Your task to perform on an android device: turn off improve location accuracy Image 0: 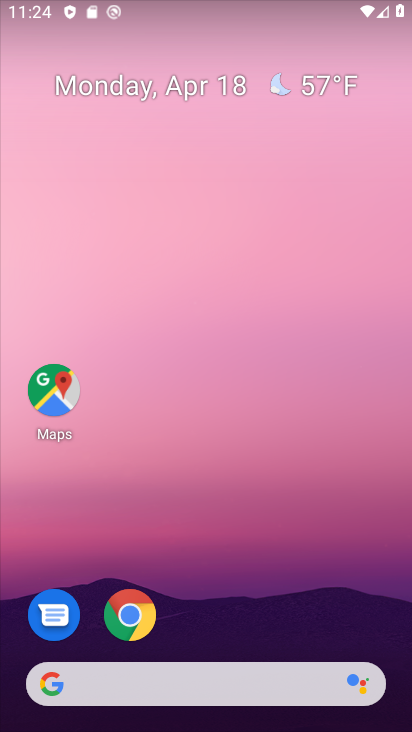
Step 0: drag from (204, 614) to (204, 229)
Your task to perform on an android device: turn off improve location accuracy Image 1: 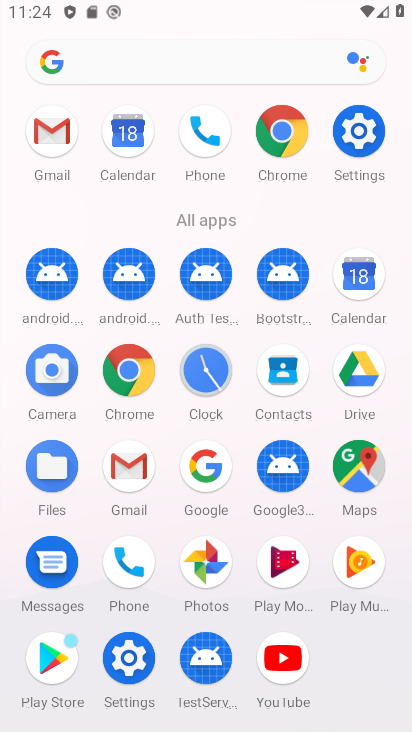
Step 1: click (350, 136)
Your task to perform on an android device: turn off improve location accuracy Image 2: 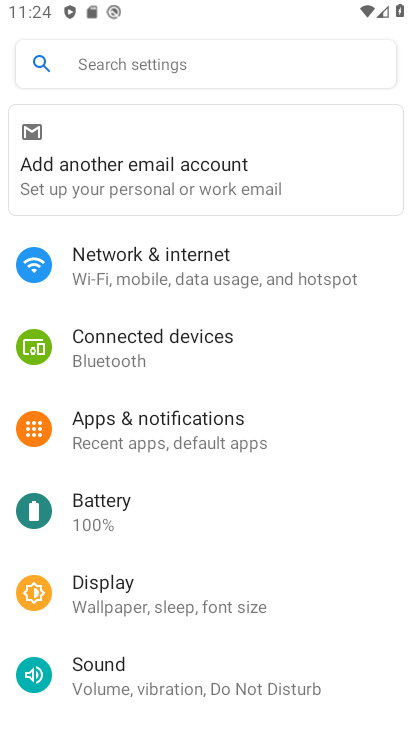
Step 2: drag from (182, 585) to (251, 270)
Your task to perform on an android device: turn off improve location accuracy Image 3: 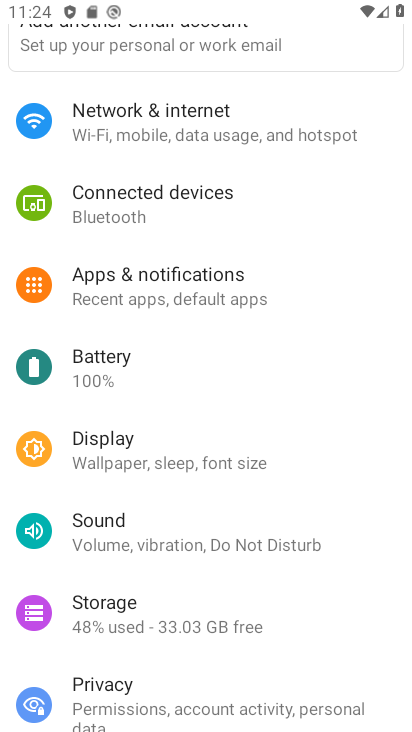
Step 3: drag from (178, 665) to (183, 342)
Your task to perform on an android device: turn off improve location accuracy Image 4: 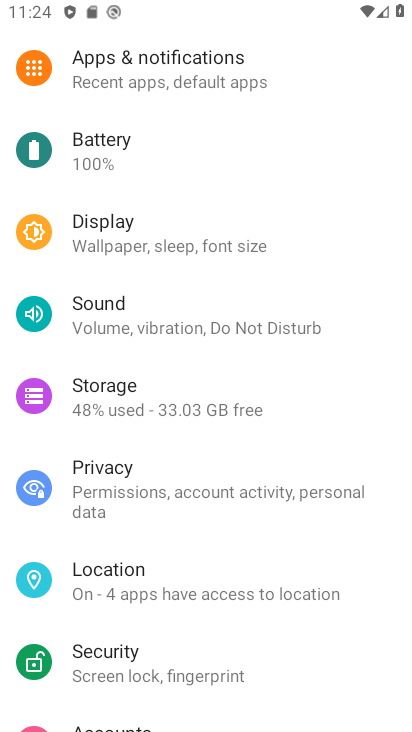
Step 4: click (183, 562)
Your task to perform on an android device: turn off improve location accuracy Image 5: 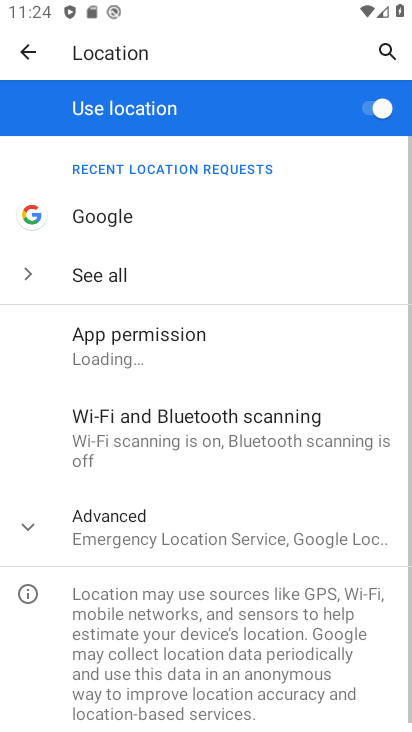
Step 5: drag from (183, 562) to (216, 284)
Your task to perform on an android device: turn off improve location accuracy Image 6: 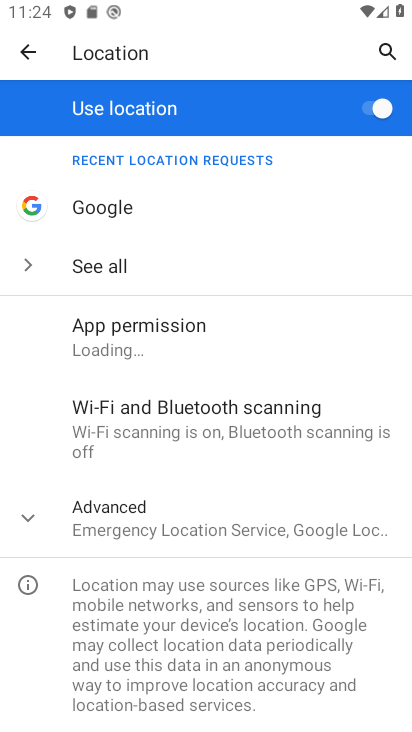
Step 6: drag from (212, 642) to (230, 378)
Your task to perform on an android device: turn off improve location accuracy Image 7: 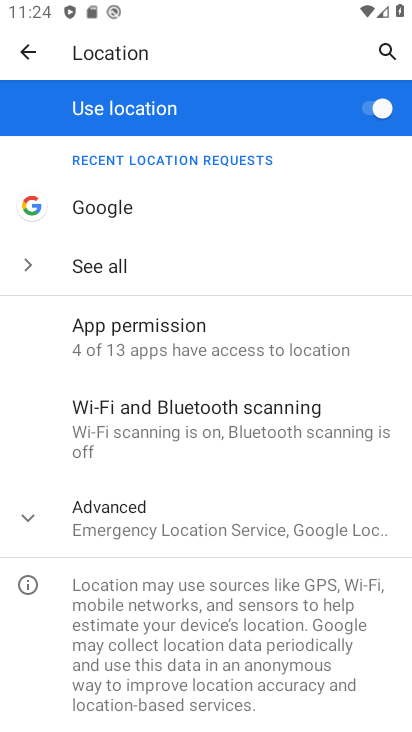
Step 7: click (204, 533)
Your task to perform on an android device: turn off improve location accuracy Image 8: 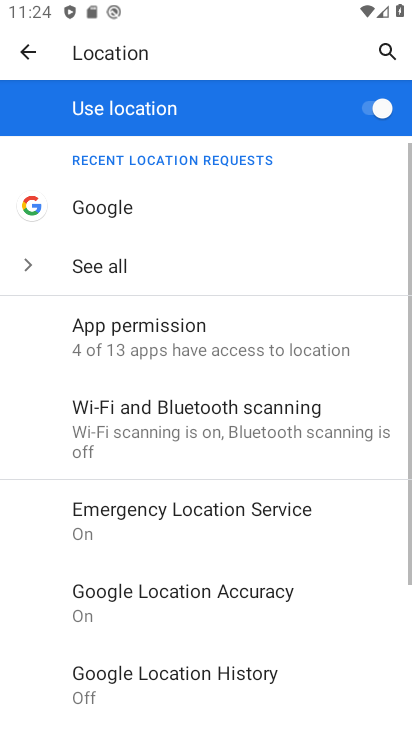
Step 8: drag from (216, 625) to (232, 356)
Your task to perform on an android device: turn off improve location accuracy Image 9: 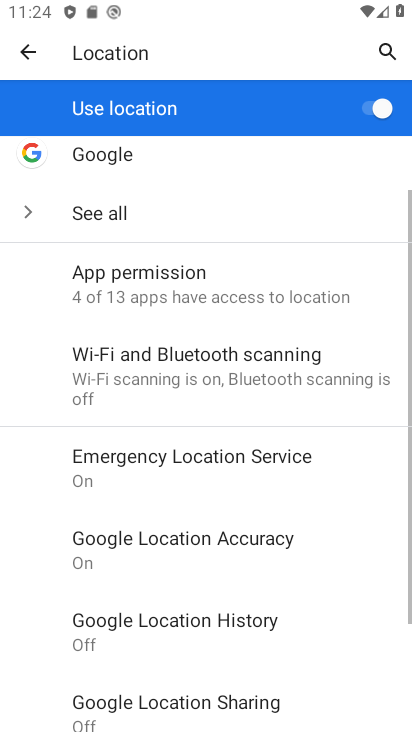
Step 9: drag from (232, 549) to (258, 340)
Your task to perform on an android device: turn off improve location accuracy Image 10: 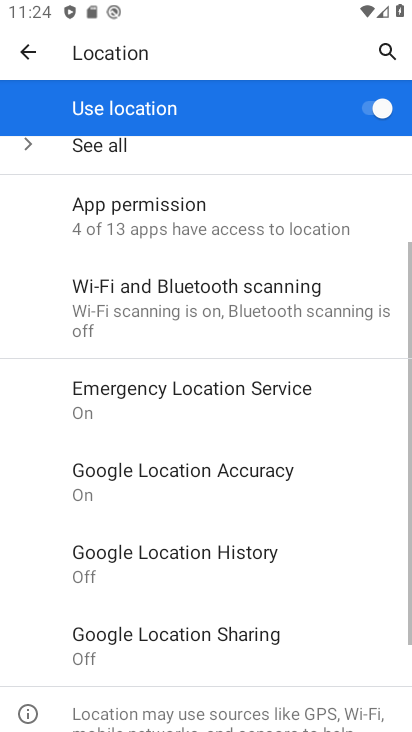
Step 10: drag from (236, 449) to (236, 413)
Your task to perform on an android device: turn off improve location accuracy Image 11: 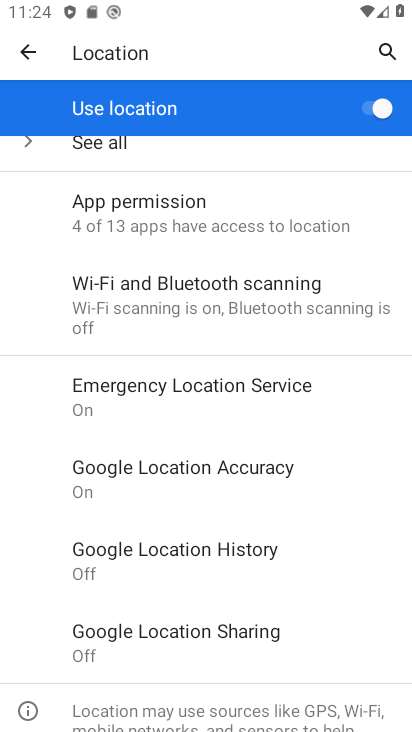
Step 11: click (230, 477)
Your task to perform on an android device: turn off improve location accuracy Image 12: 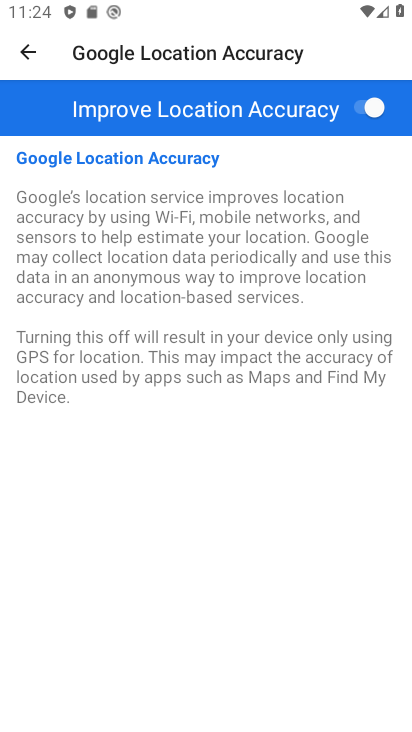
Step 12: click (355, 108)
Your task to perform on an android device: turn off improve location accuracy Image 13: 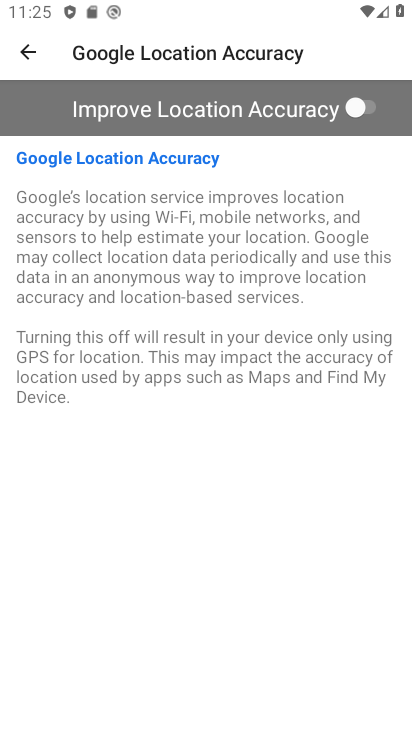
Step 13: task complete